Your task to perform on an android device: Go to CNN.com Image 0: 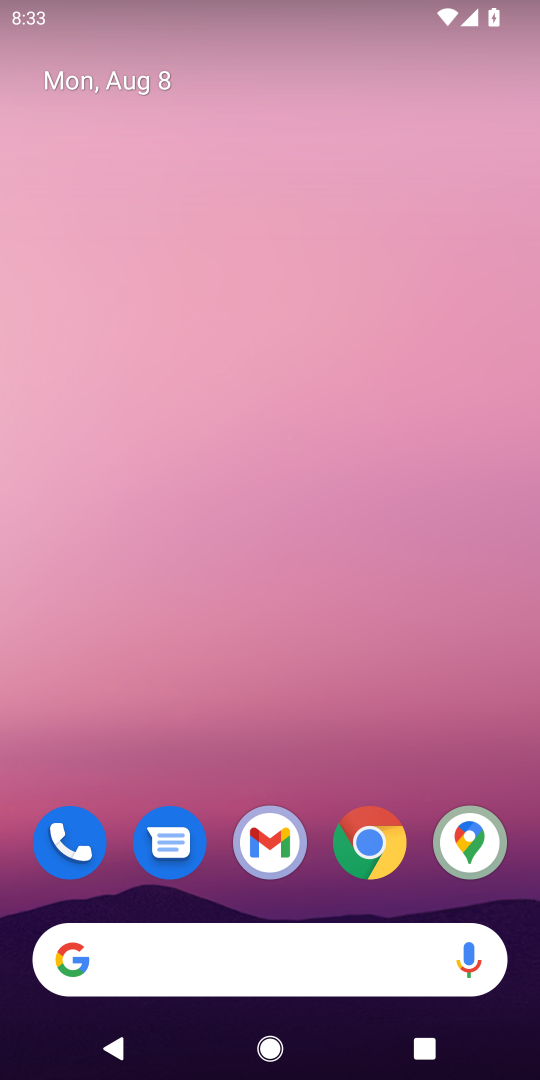
Step 0: click (373, 839)
Your task to perform on an android device: Go to CNN.com Image 1: 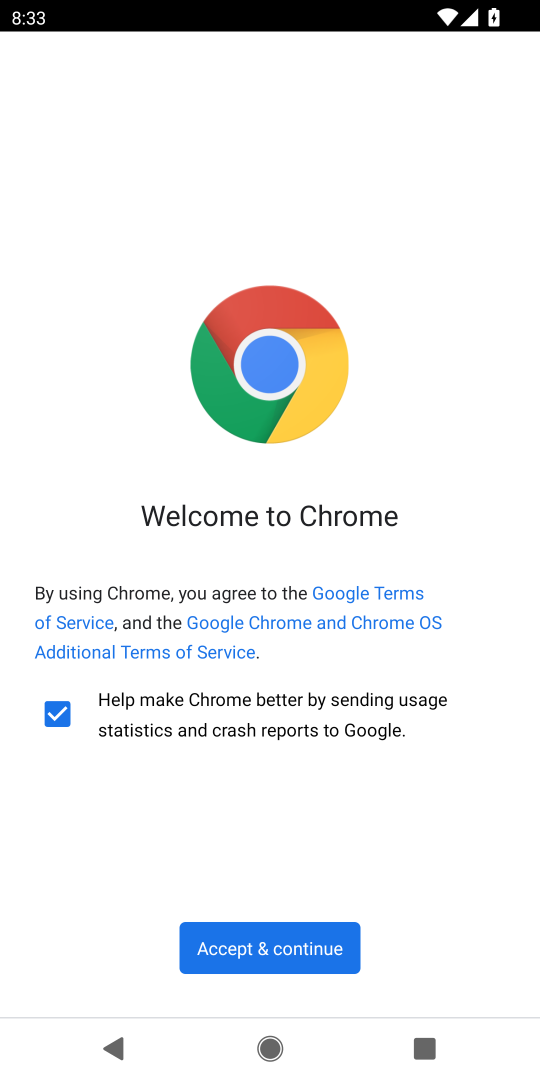
Step 1: click (238, 927)
Your task to perform on an android device: Go to CNN.com Image 2: 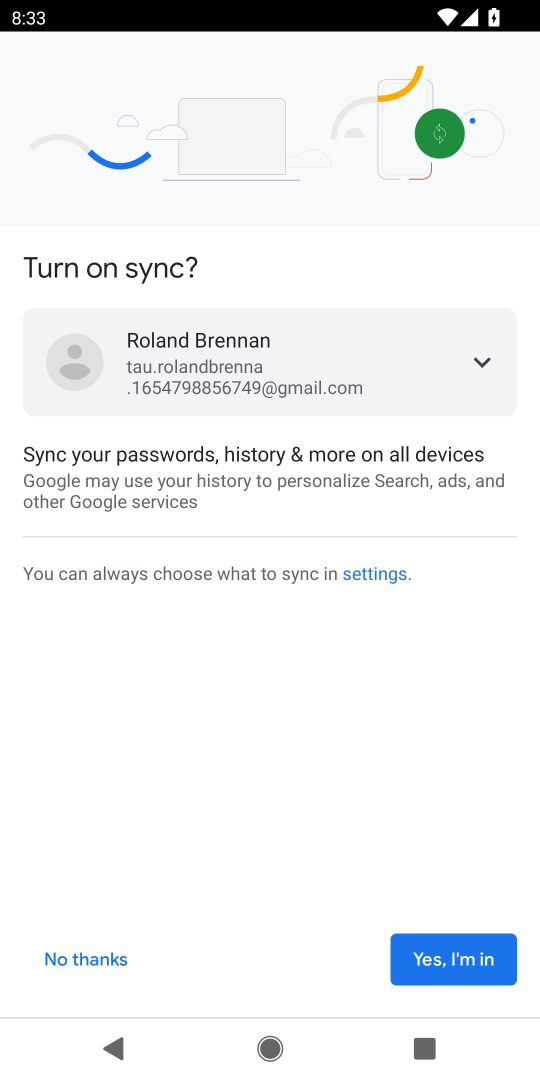
Step 2: click (446, 973)
Your task to perform on an android device: Go to CNN.com Image 3: 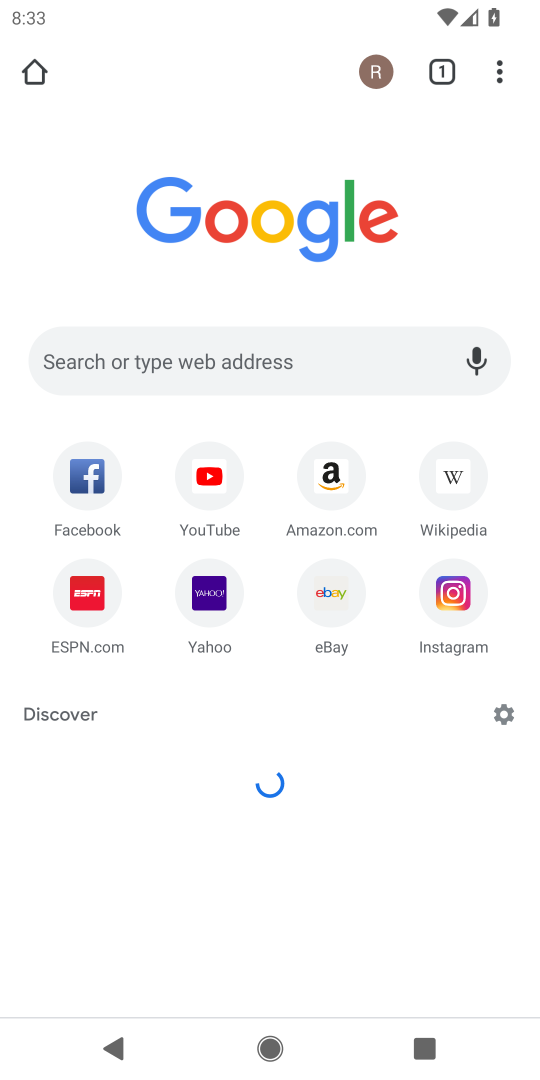
Step 3: click (311, 350)
Your task to perform on an android device: Go to CNN.com Image 4: 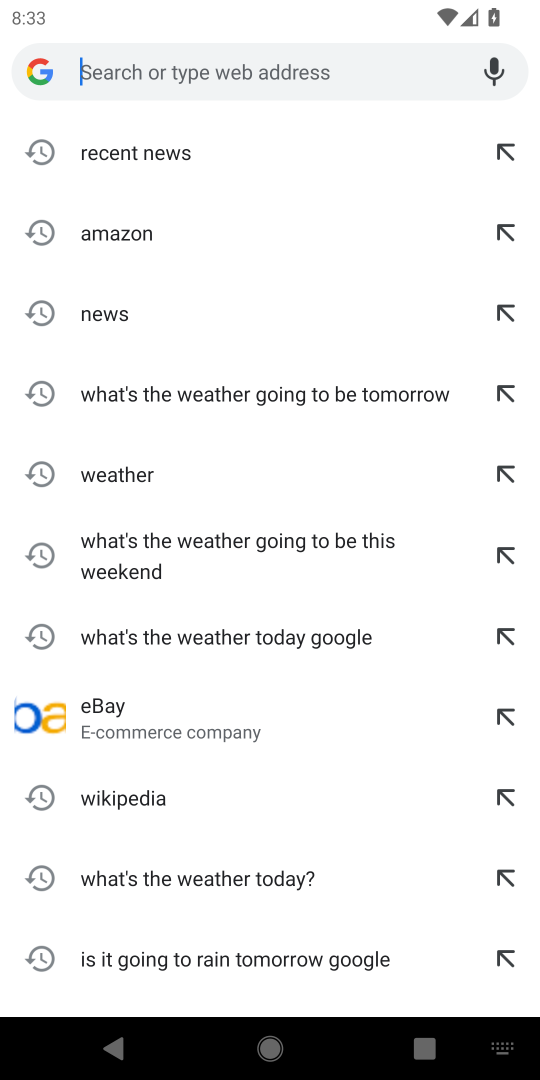
Step 4: type "cnn.com"
Your task to perform on an android device: Go to CNN.com Image 5: 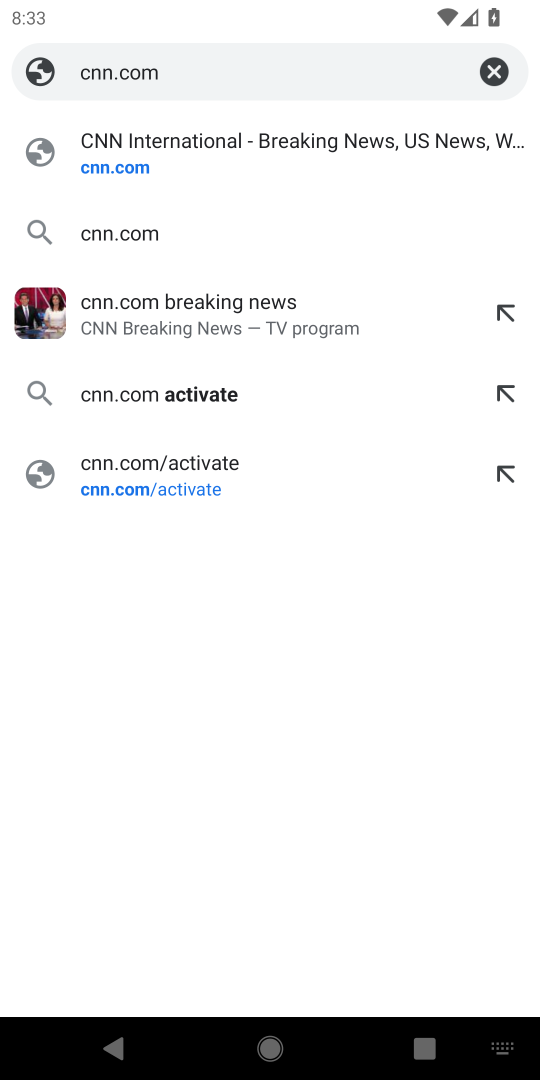
Step 5: click (189, 146)
Your task to perform on an android device: Go to CNN.com Image 6: 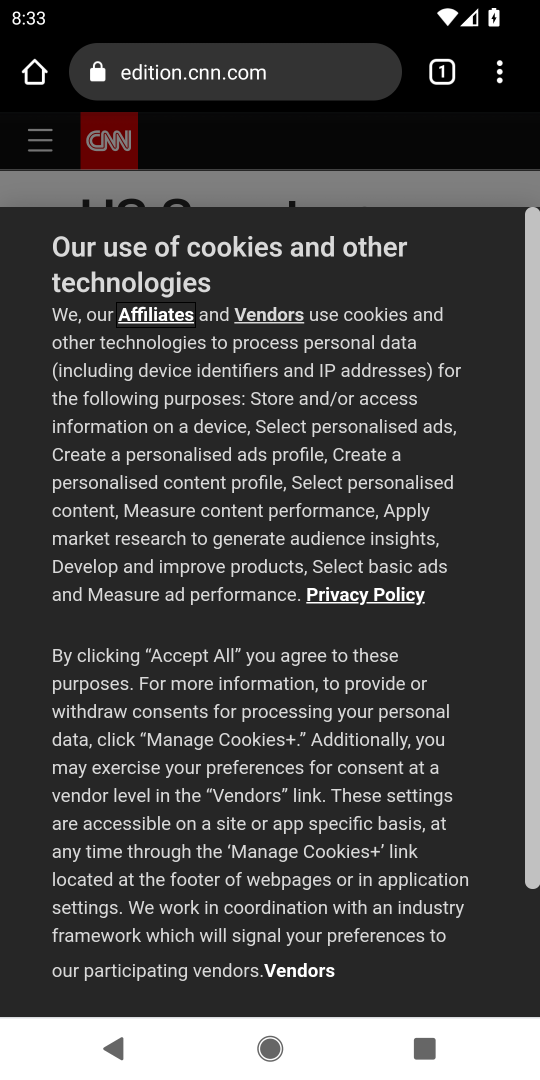
Step 6: task complete